Your task to perform on an android device: What's the weather going to be tomorrow? Image 0: 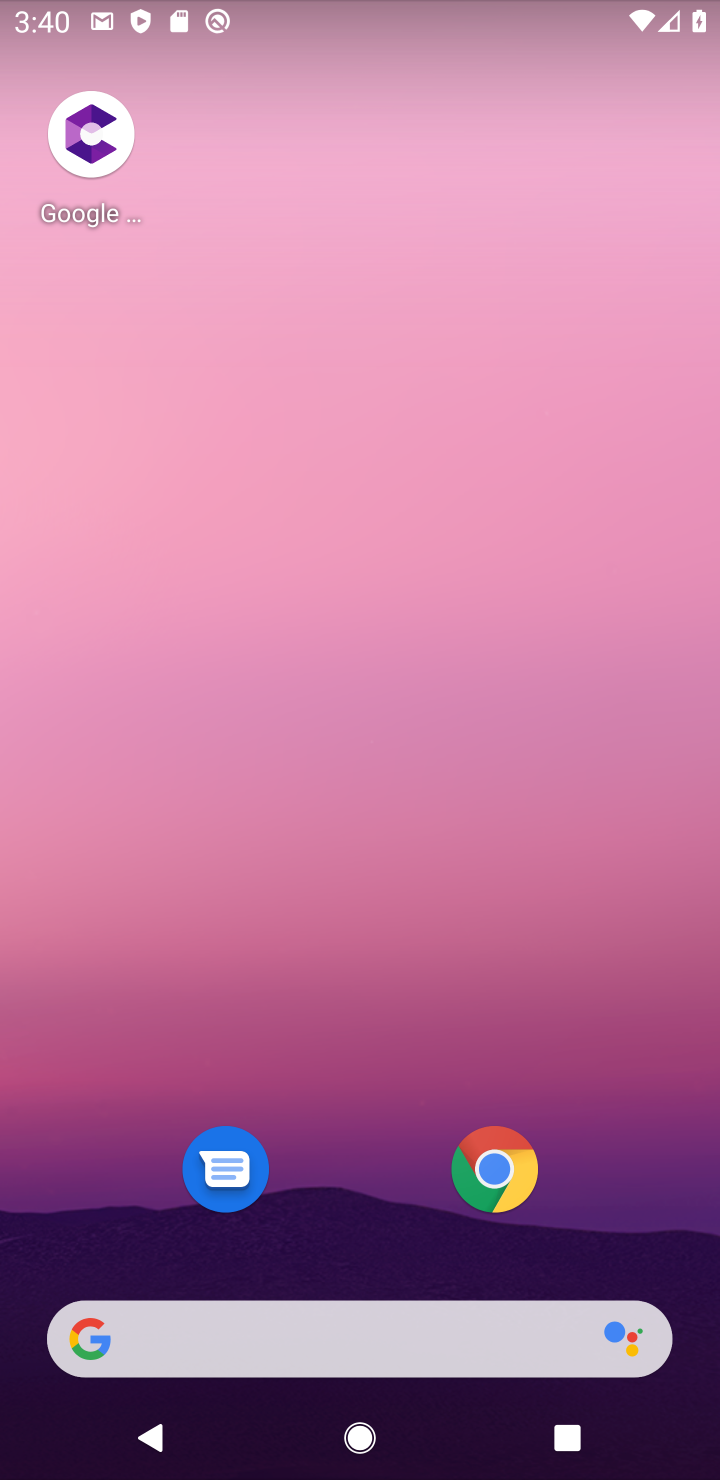
Step 0: drag from (326, 1144) to (449, 13)
Your task to perform on an android device: What's the weather going to be tomorrow? Image 1: 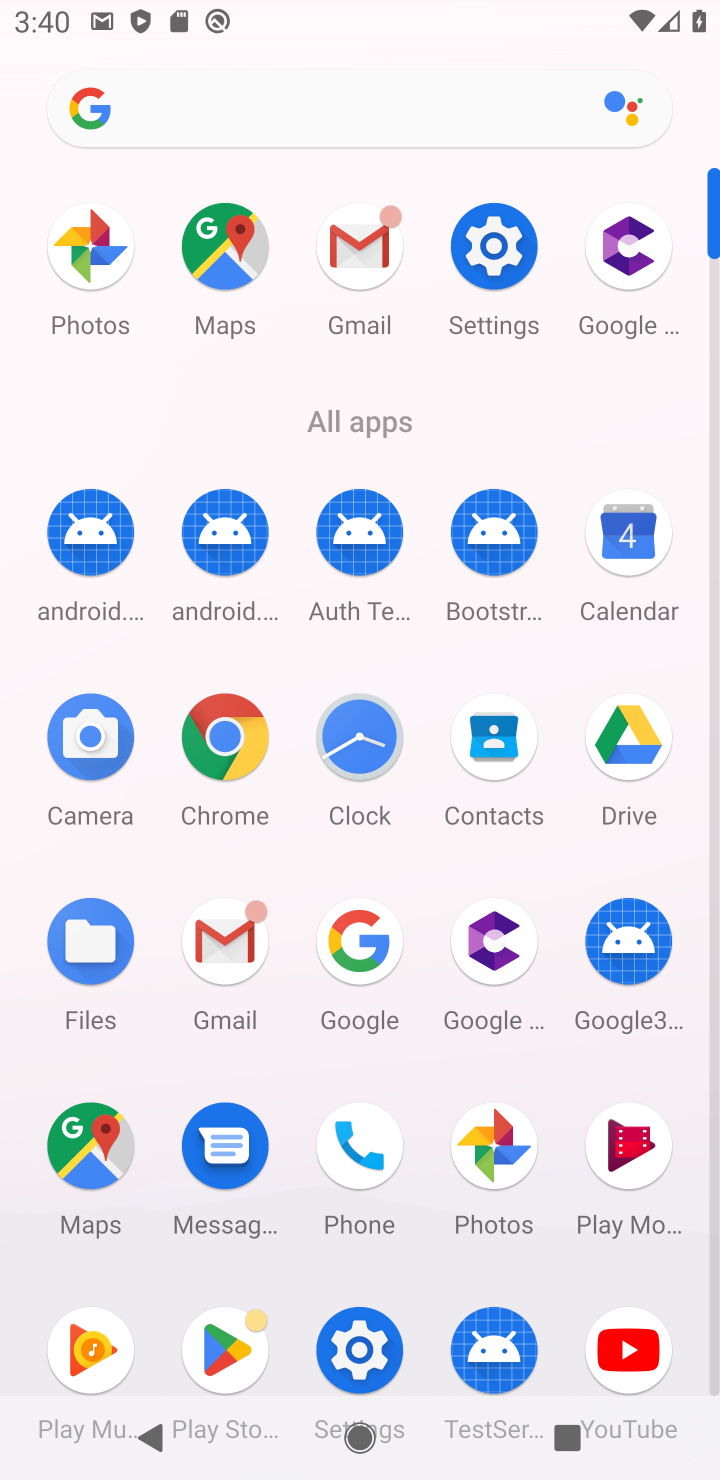
Step 1: click (402, 121)
Your task to perform on an android device: What's the weather going to be tomorrow? Image 2: 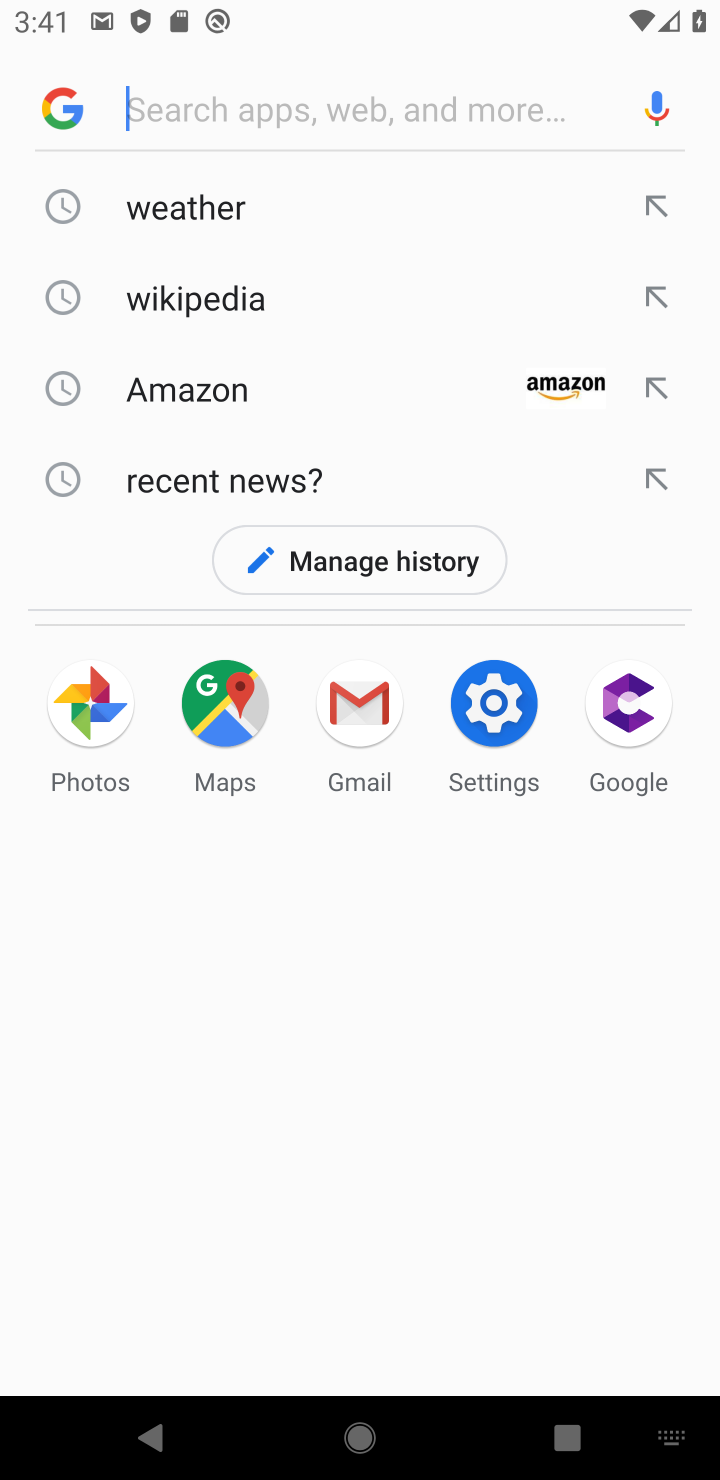
Step 2: type "weather"
Your task to perform on an android device: What's the weather going to be tomorrow? Image 3: 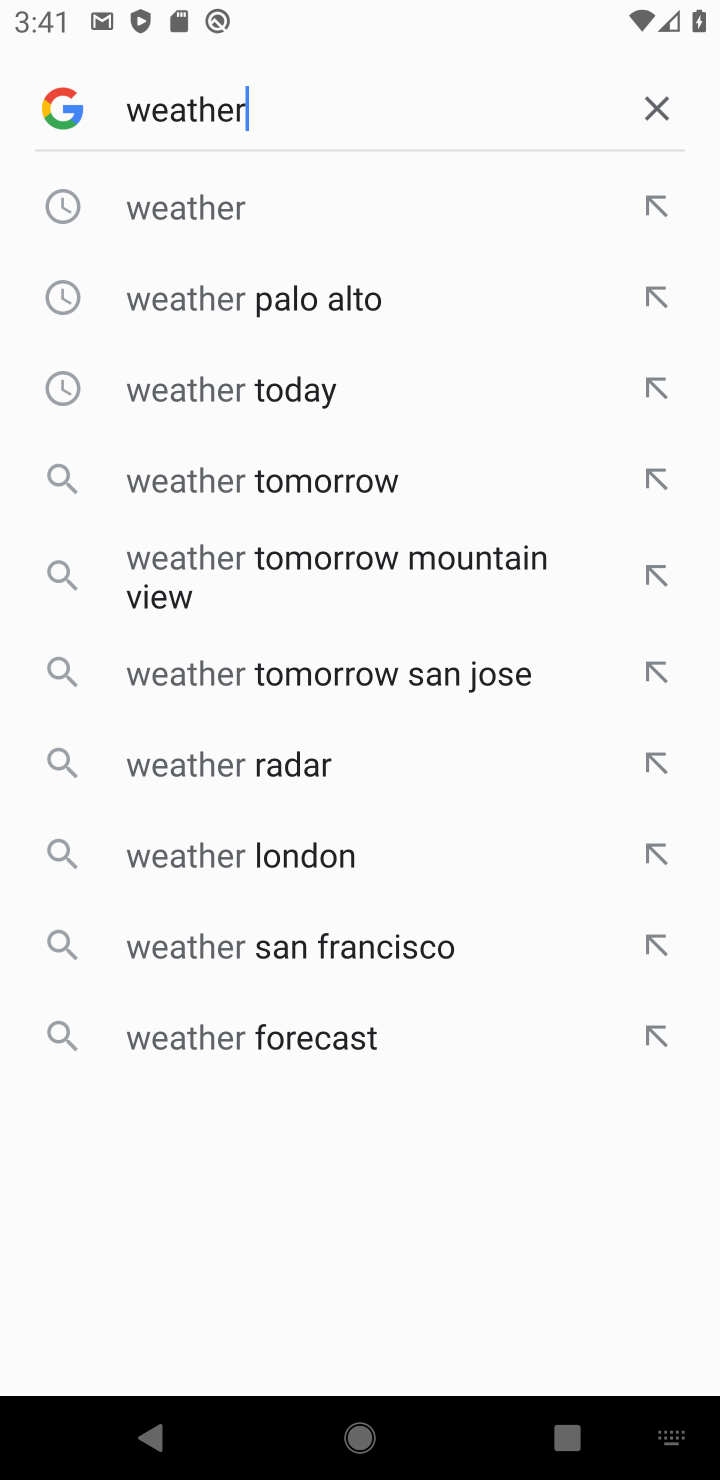
Step 3: click (218, 182)
Your task to perform on an android device: What's the weather going to be tomorrow? Image 4: 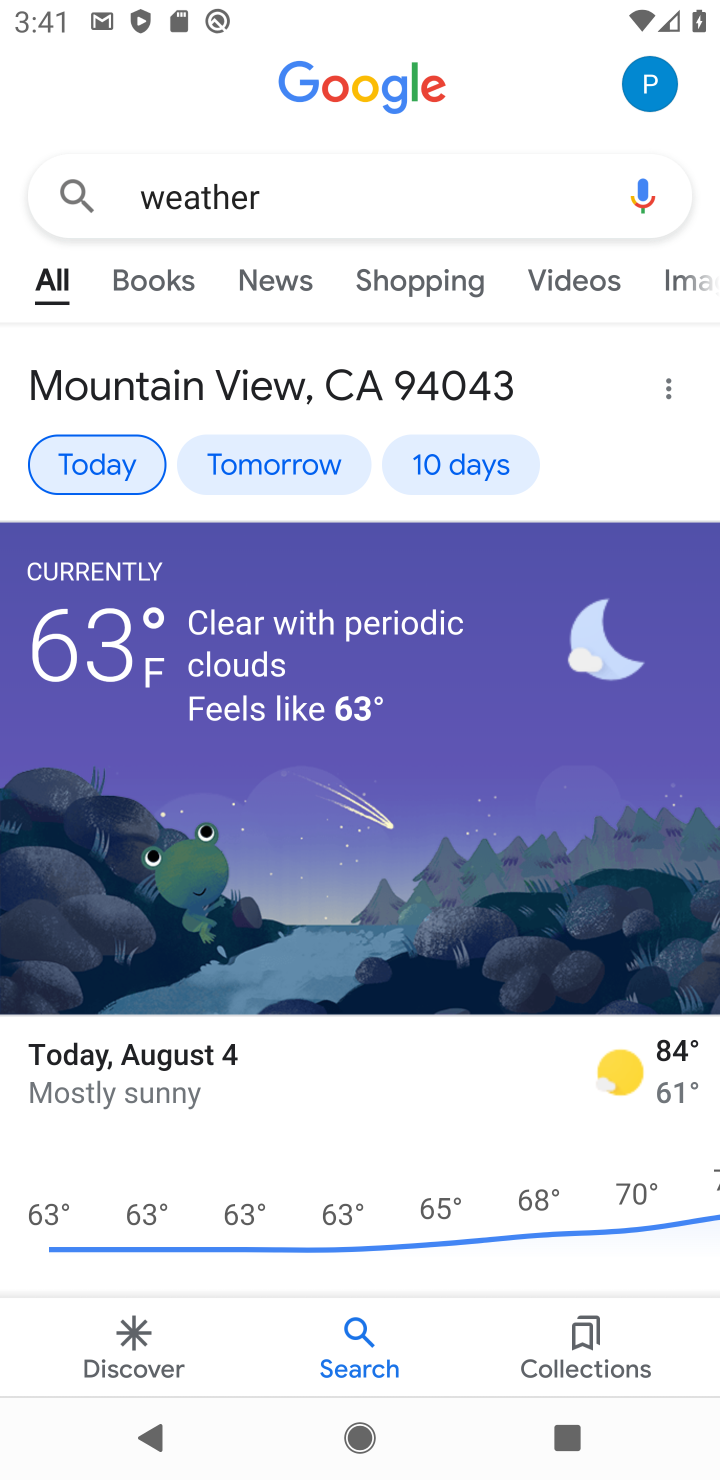
Step 4: click (264, 456)
Your task to perform on an android device: What's the weather going to be tomorrow? Image 5: 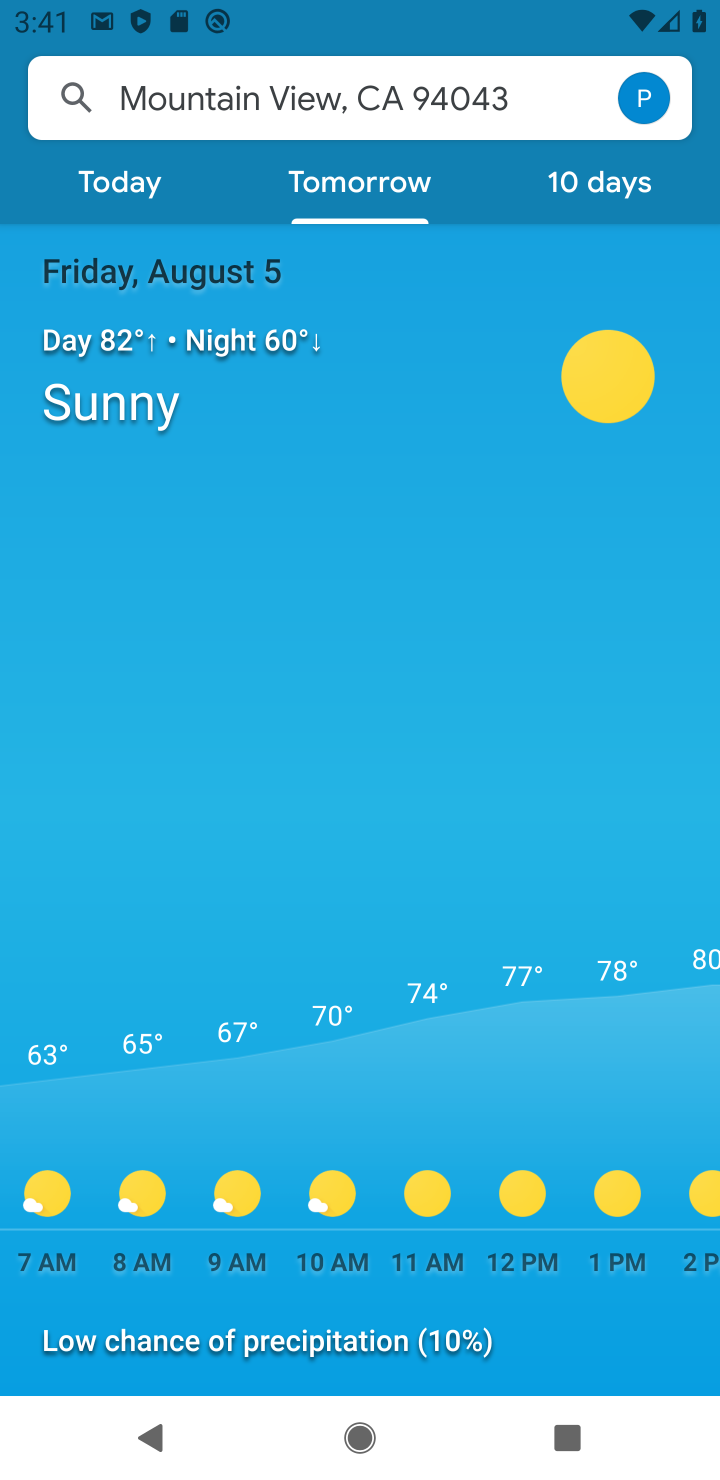
Step 5: task complete